Your task to perform on an android device: delete browsing data in the chrome app Image 0: 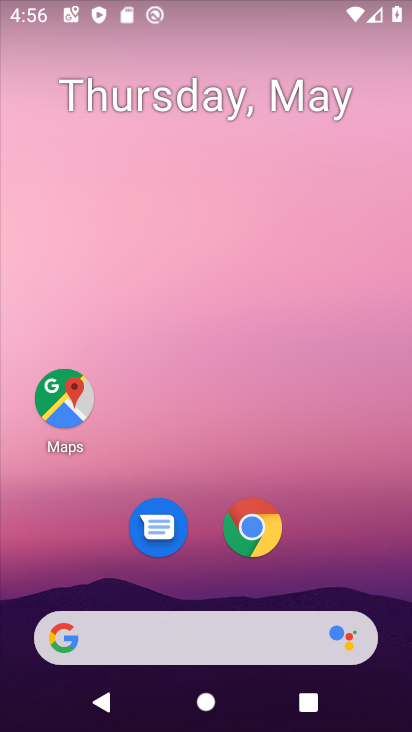
Step 0: drag from (340, 387) to (366, 111)
Your task to perform on an android device: delete browsing data in the chrome app Image 1: 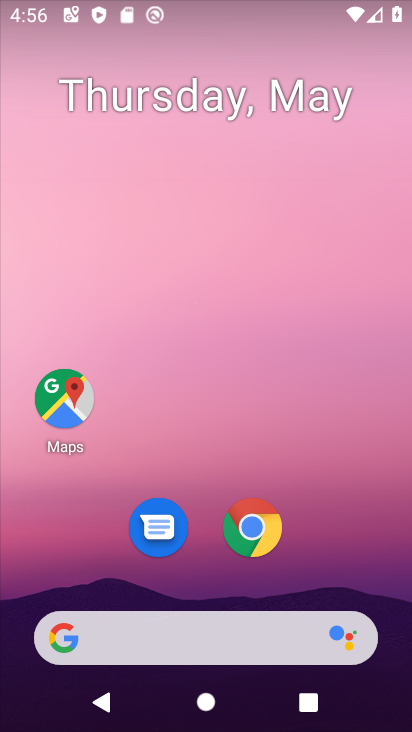
Step 1: drag from (336, 560) to (339, 138)
Your task to perform on an android device: delete browsing data in the chrome app Image 2: 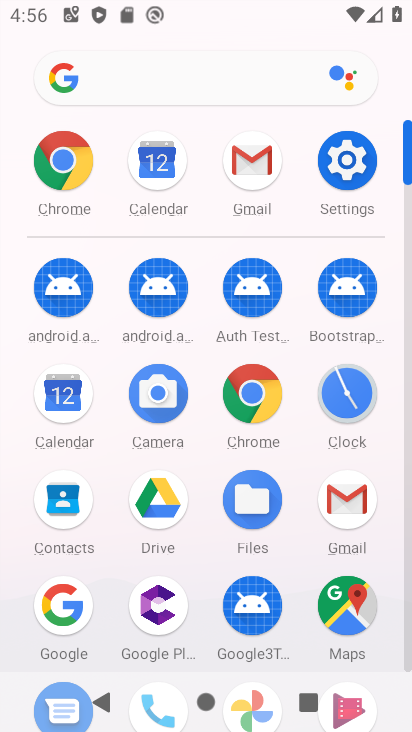
Step 2: click (80, 168)
Your task to perform on an android device: delete browsing data in the chrome app Image 3: 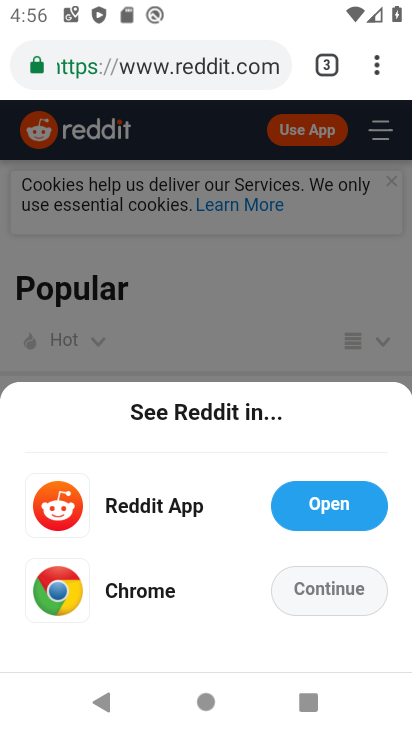
Step 3: drag from (369, 66) to (145, 377)
Your task to perform on an android device: delete browsing data in the chrome app Image 4: 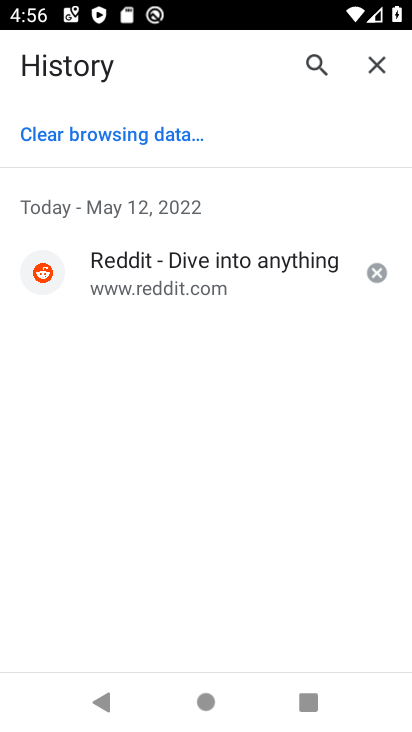
Step 4: click (165, 139)
Your task to perform on an android device: delete browsing data in the chrome app Image 5: 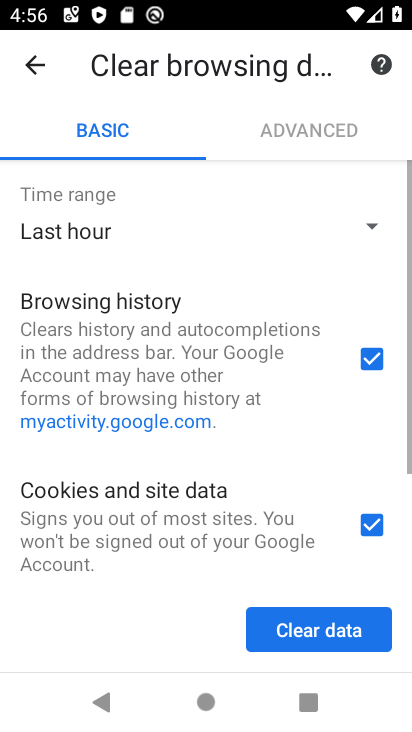
Step 5: click (334, 628)
Your task to perform on an android device: delete browsing data in the chrome app Image 6: 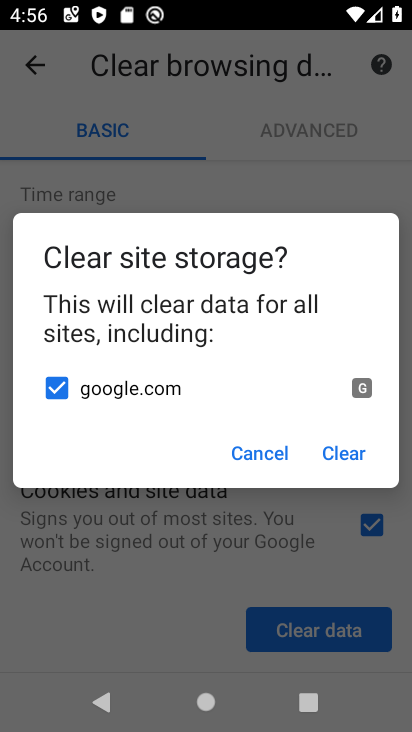
Step 6: click (352, 455)
Your task to perform on an android device: delete browsing data in the chrome app Image 7: 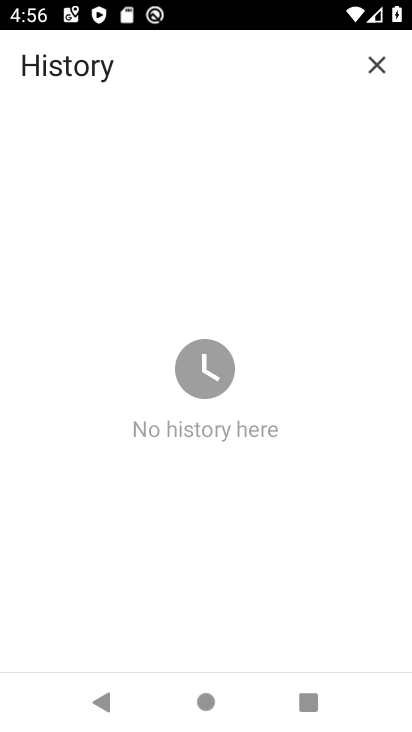
Step 7: task complete